Your task to perform on an android device: open a bookmark in the chrome app Image 0: 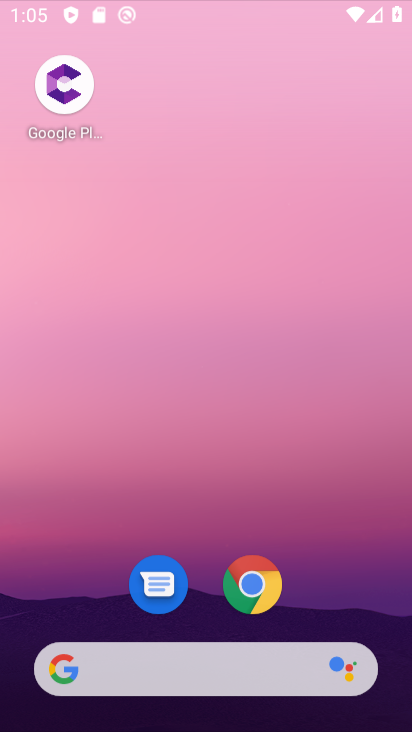
Step 0: click (357, 131)
Your task to perform on an android device: open a bookmark in the chrome app Image 1: 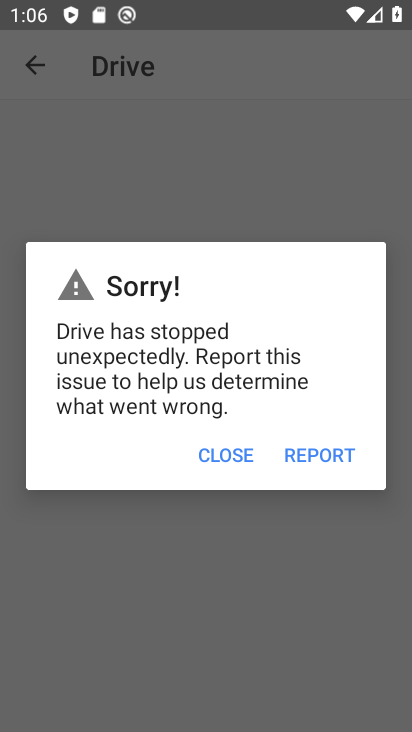
Step 1: press home button
Your task to perform on an android device: open a bookmark in the chrome app Image 2: 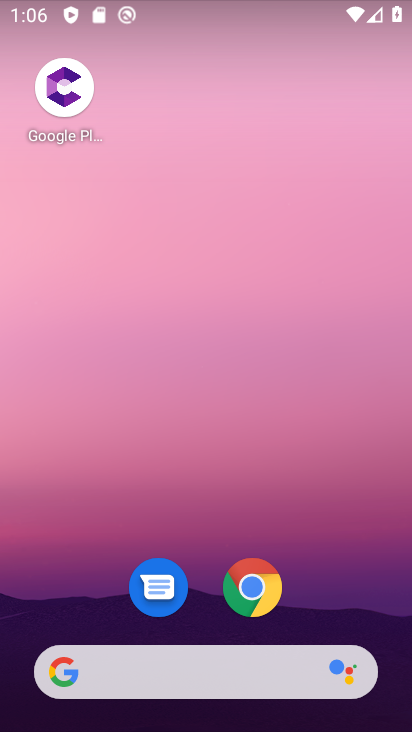
Step 2: drag from (366, 589) to (352, 166)
Your task to perform on an android device: open a bookmark in the chrome app Image 3: 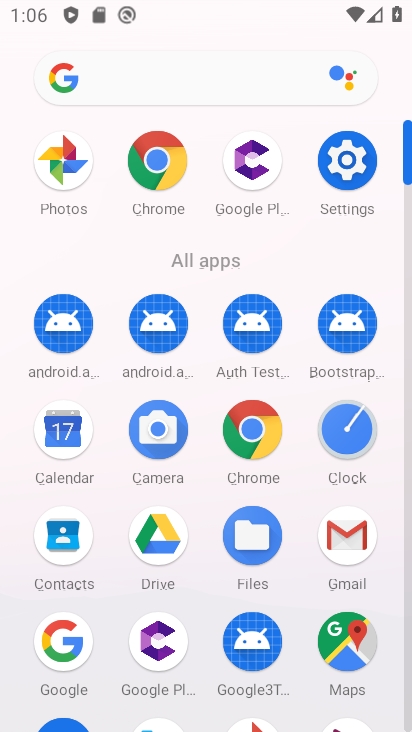
Step 3: click (275, 439)
Your task to perform on an android device: open a bookmark in the chrome app Image 4: 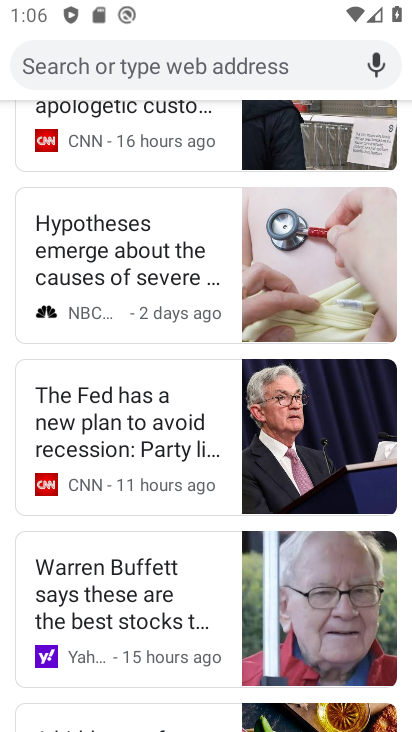
Step 4: task complete